Your task to perform on an android device: change the clock display to show seconds Image 0: 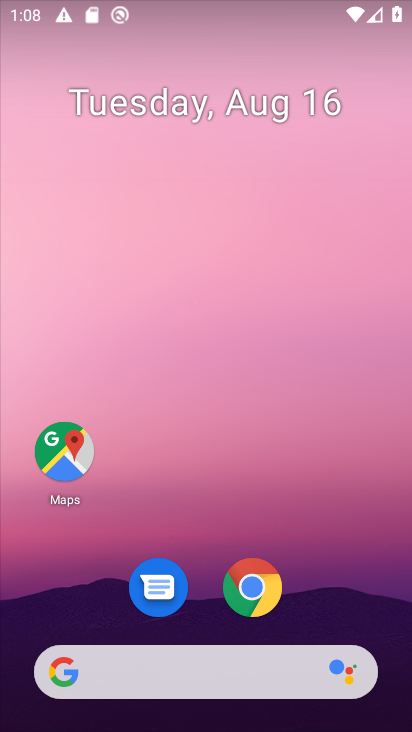
Step 0: drag from (261, 654) to (342, 223)
Your task to perform on an android device: change the clock display to show seconds Image 1: 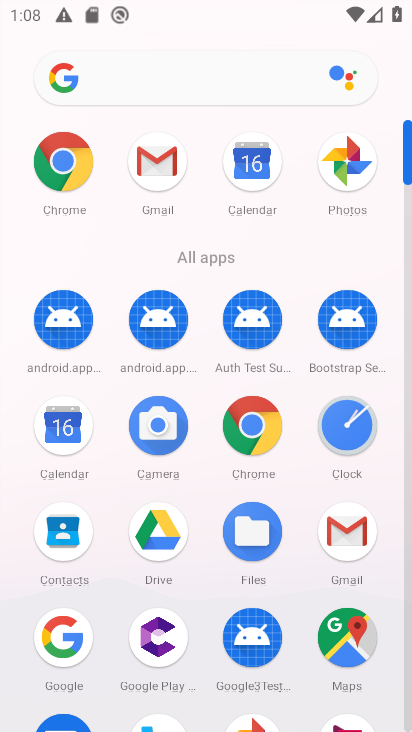
Step 1: click (322, 429)
Your task to perform on an android device: change the clock display to show seconds Image 2: 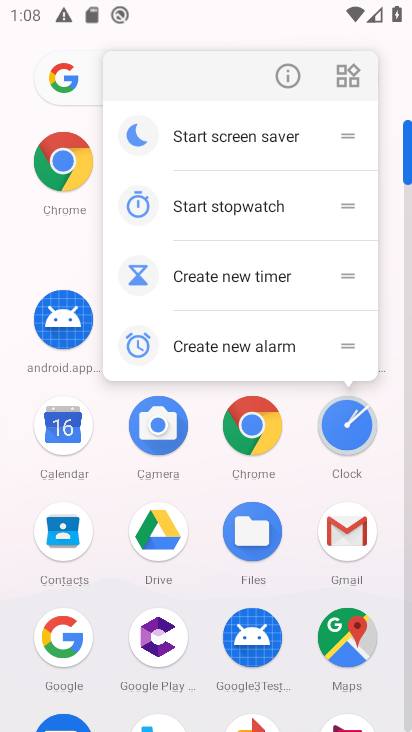
Step 2: click (341, 436)
Your task to perform on an android device: change the clock display to show seconds Image 3: 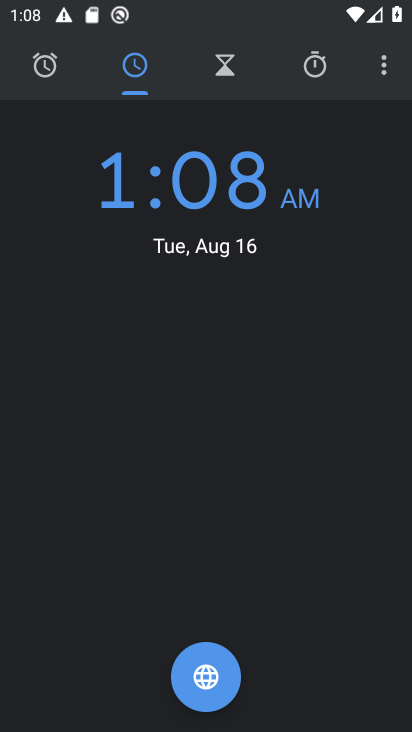
Step 3: click (384, 57)
Your task to perform on an android device: change the clock display to show seconds Image 4: 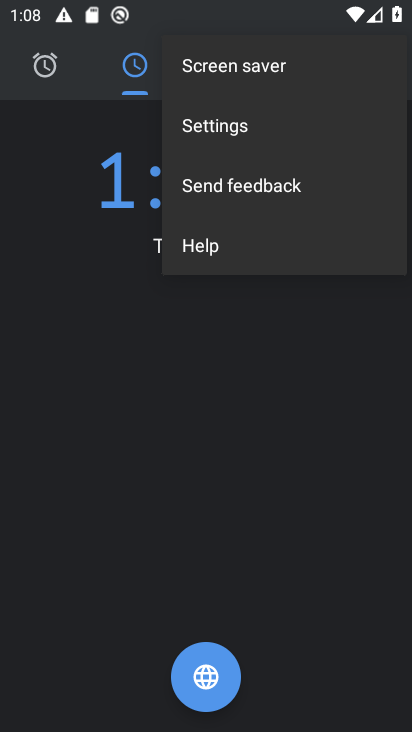
Step 4: click (245, 124)
Your task to perform on an android device: change the clock display to show seconds Image 5: 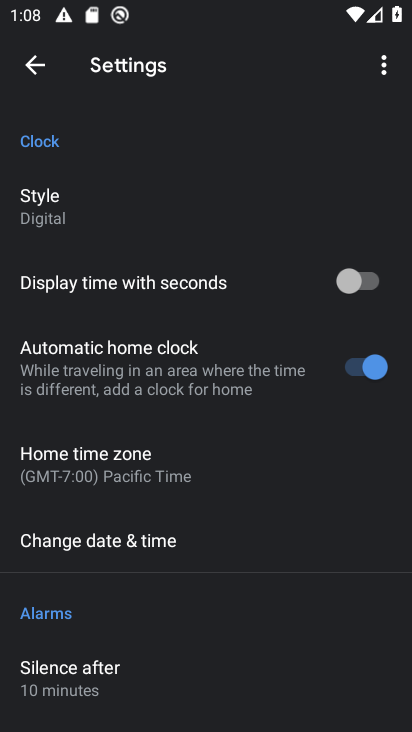
Step 5: drag from (102, 525) to (191, 130)
Your task to perform on an android device: change the clock display to show seconds Image 6: 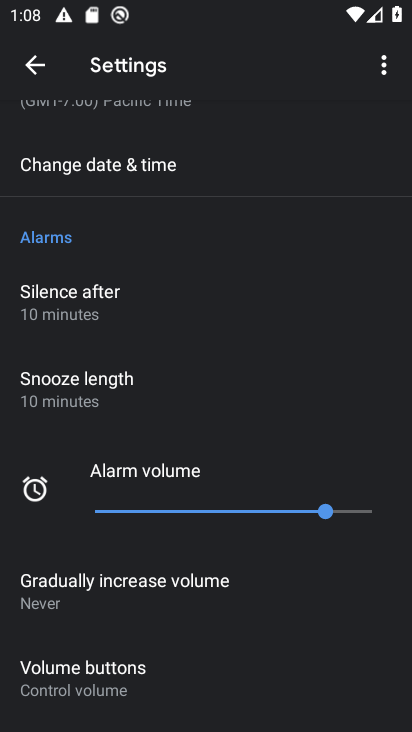
Step 6: drag from (100, 515) to (152, 200)
Your task to perform on an android device: change the clock display to show seconds Image 7: 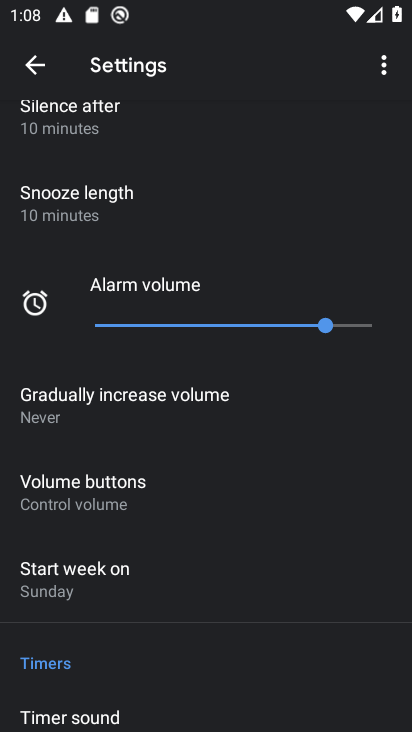
Step 7: drag from (167, 127) to (141, 495)
Your task to perform on an android device: change the clock display to show seconds Image 8: 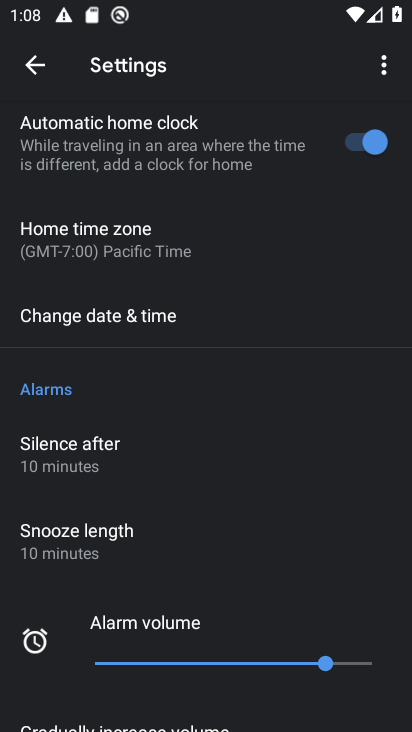
Step 8: drag from (185, 158) to (210, 518)
Your task to perform on an android device: change the clock display to show seconds Image 9: 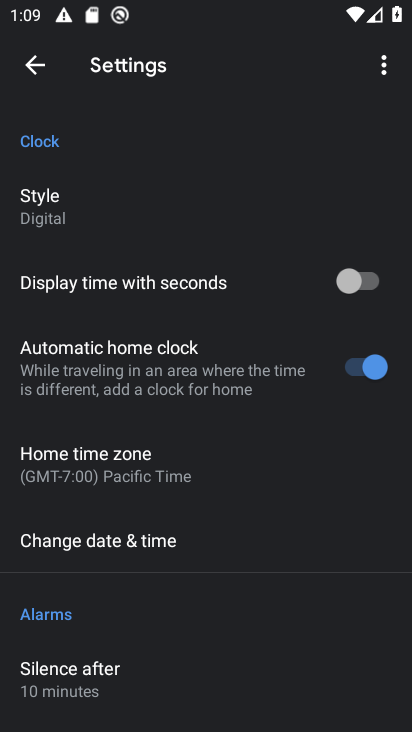
Step 9: click (367, 288)
Your task to perform on an android device: change the clock display to show seconds Image 10: 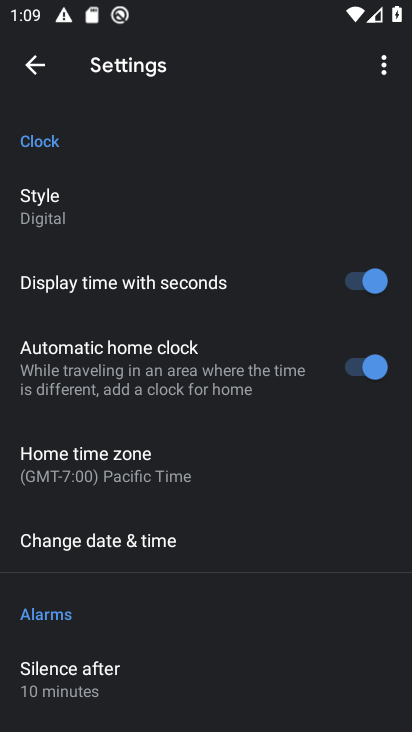
Step 10: task complete